Your task to perform on an android device: clear history in the chrome app Image 0: 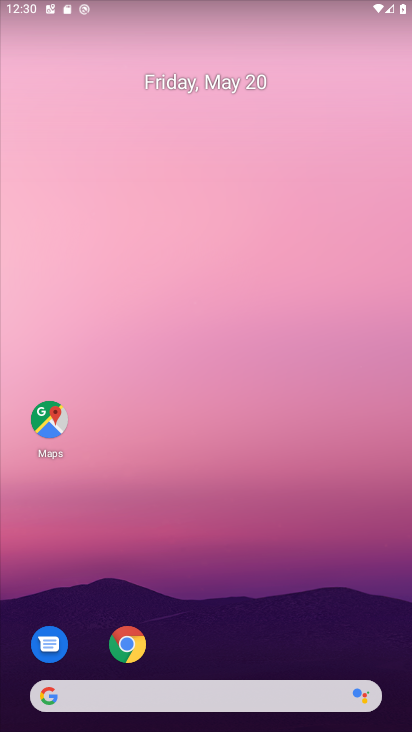
Step 0: click (132, 641)
Your task to perform on an android device: clear history in the chrome app Image 1: 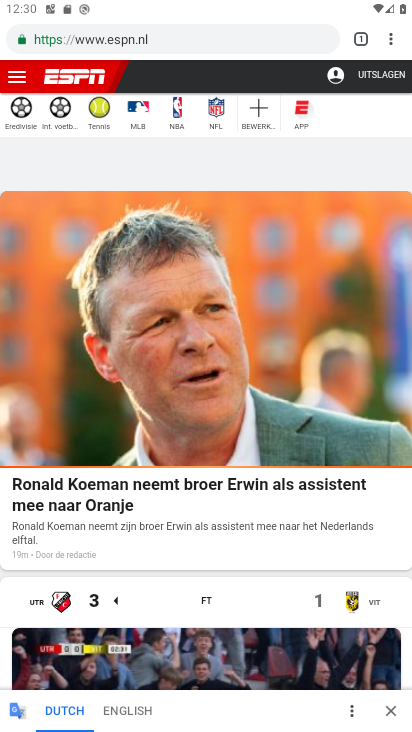
Step 1: click (395, 31)
Your task to perform on an android device: clear history in the chrome app Image 2: 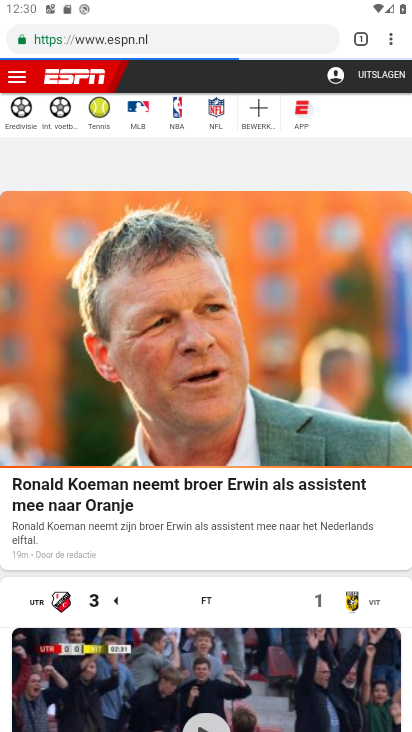
Step 2: click (395, 44)
Your task to perform on an android device: clear history in the chrome app Image 3: 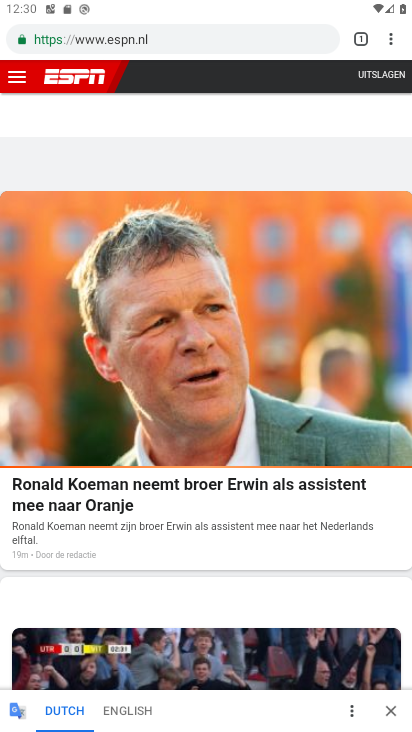
Step 3: click (386, 39)
Your task to perform on an android device: clear history in the chrome app Image 4: 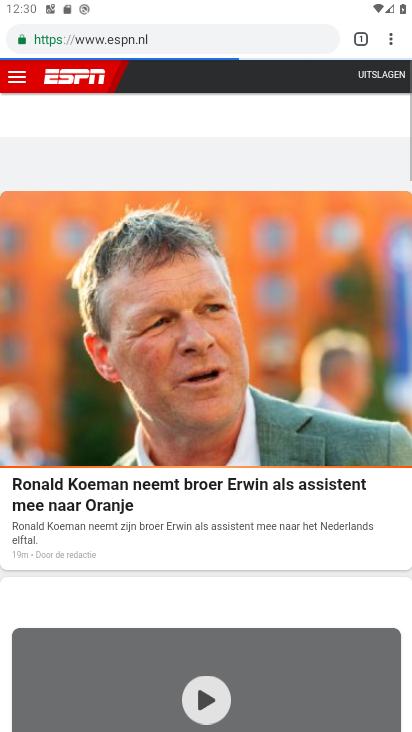
Step 4: click (393, 41)
Your task to perform on an android device: clear history in the chrome app Image 5: 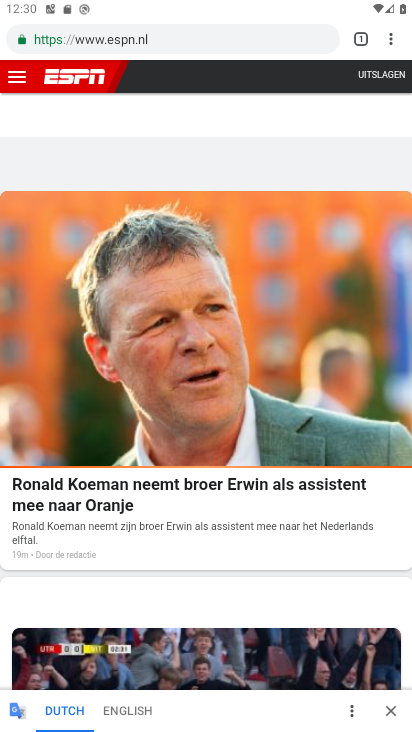
Step 5: click (399, 38)
Your task to perform on an android device: clear history in the chrome app Image 6: 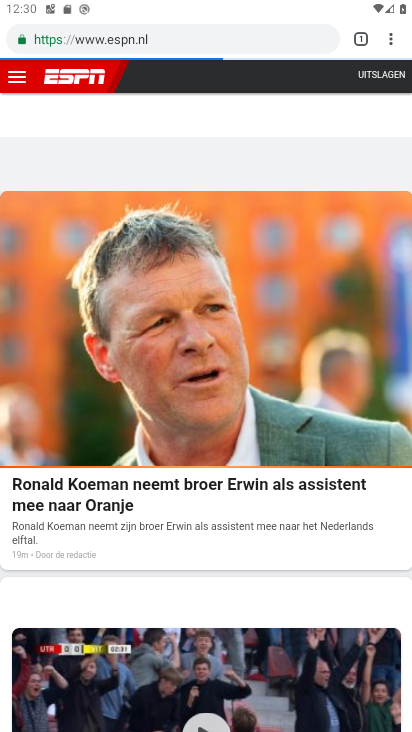
Step 6: click (391, 31)
Your task to perform on an android device: clear history in the chrome app Image 7: 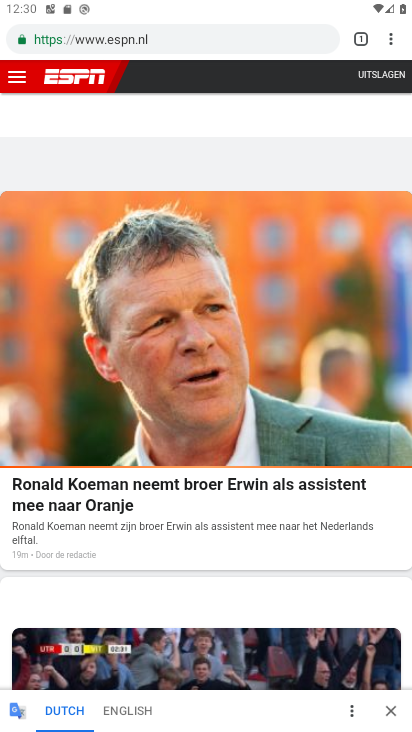
Step 7: click (399, 36)
Your task to perform on an android device: clear history in the chrome app Image 8: 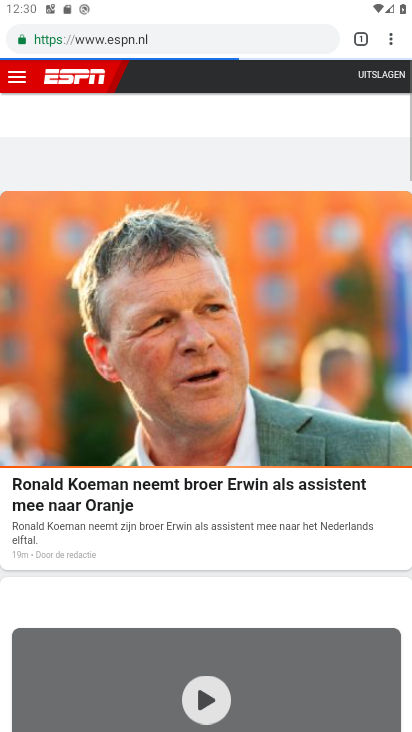
Step 8: click (386, 32)
Your task to perform on an android device: clear history in the chrome app Image 9: 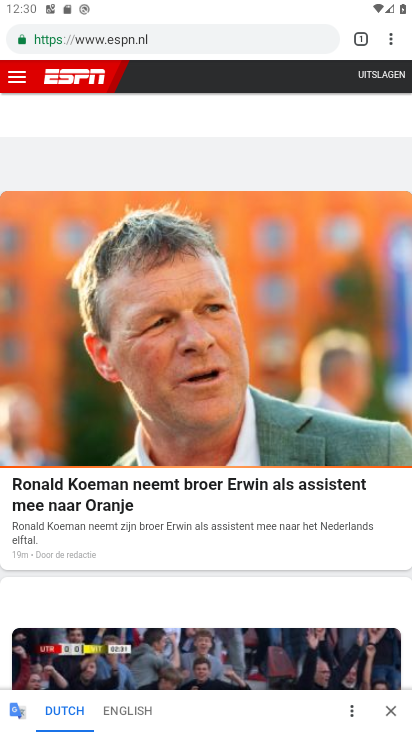
Step 9: click (389, 34)
Your task to perform on an android device: clear history in the chrome app Image 10: 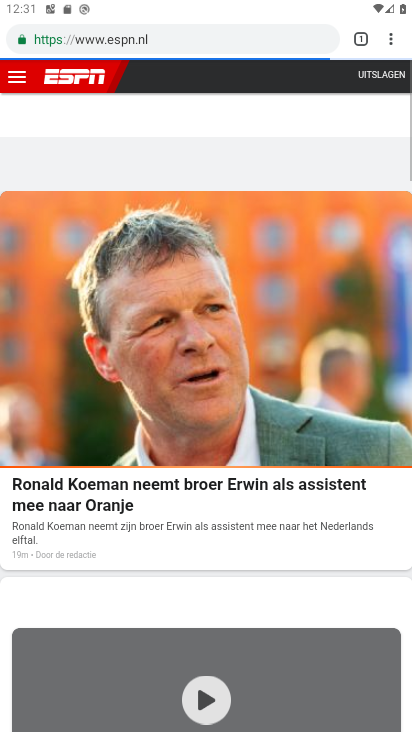
Step 10: click (391, 38)
Your task to perform on an android device: clear history in the chrome app Image 11: 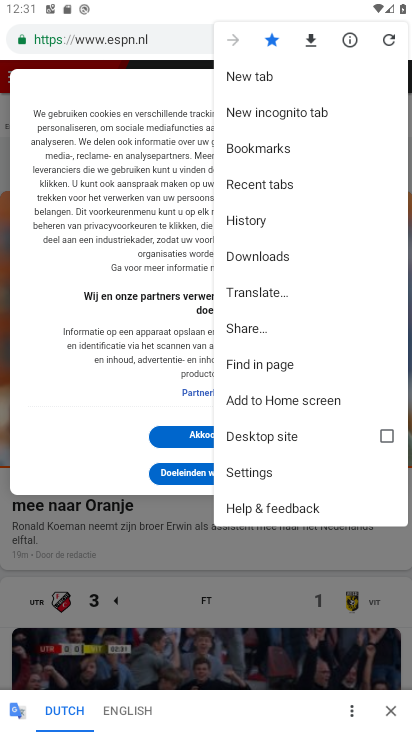
Step 11: click (242, 222)
Your task to perform on an android device: clear history in the chrome app Image 12: 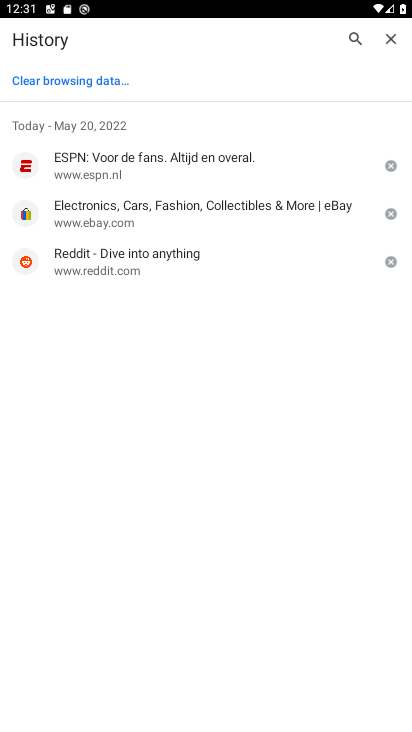
Step 12: click (103, 76)
Your task to perform on an android device: clear history in the chrome app Image 13: 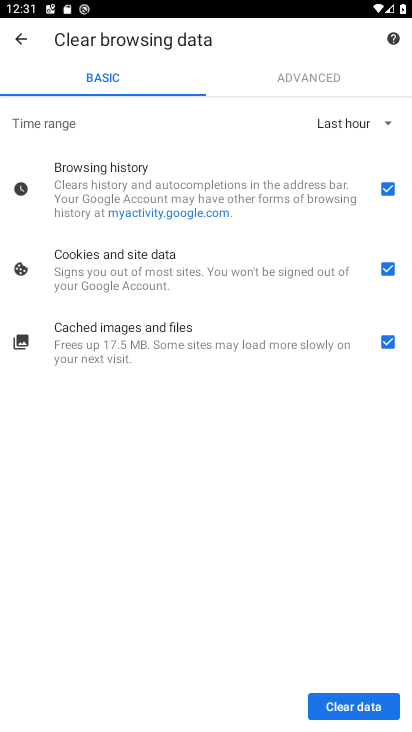
Step 13: click (331, 708)
Your task to perform on an android device: clear history in the chrome app Image 14: 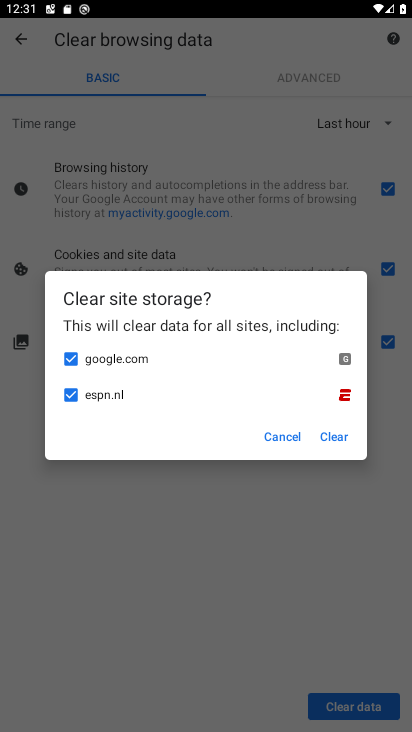
Step 14: click (331, 432)
Your task to perform on an android device: clear history in the chrome app Image 15: 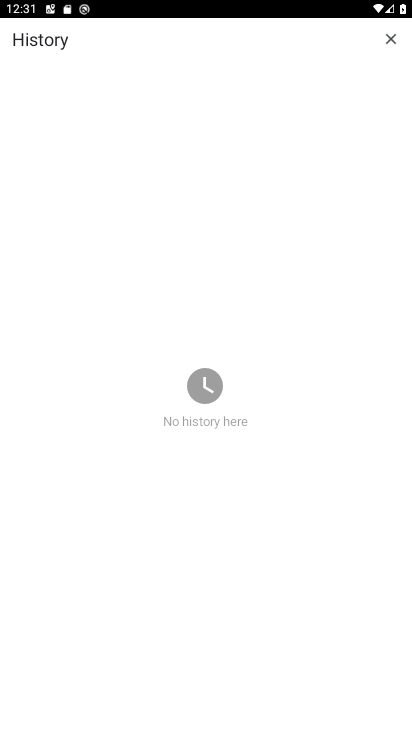
Step 15: task complete